Your task to perform on an android device: open wifi settings Image 0: 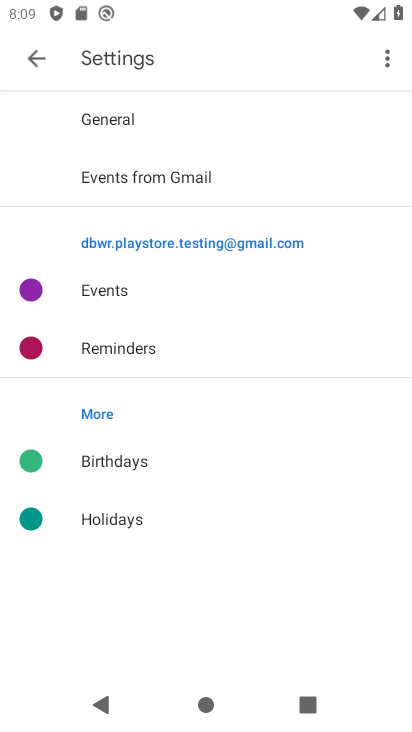
Step 0: press home button
Your task to perform on an android device: open wifi settings Image 1: 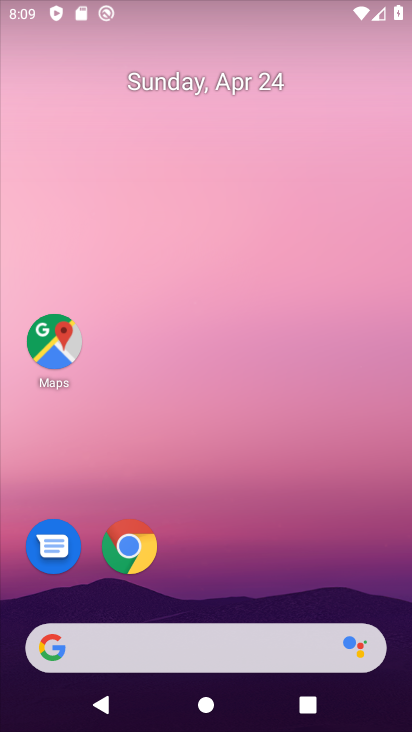
Step 1: drag from (178, 470) to (178, 137)
Your task to perform on an android device: open wifi settings Image 2: 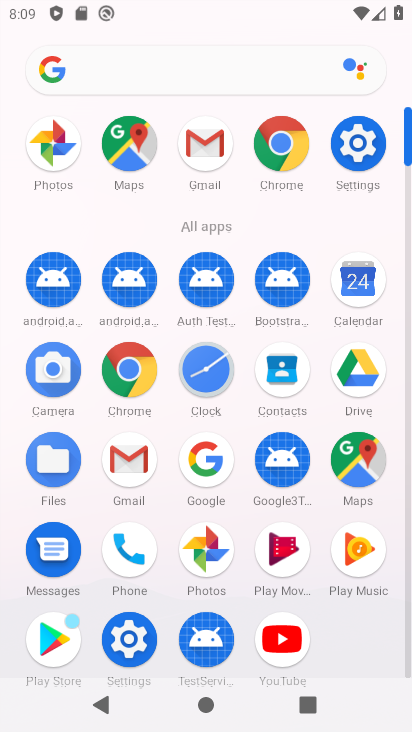
Step 2: click (365, 147)
Your task to perform on an android device: open wifi settings Image 3: 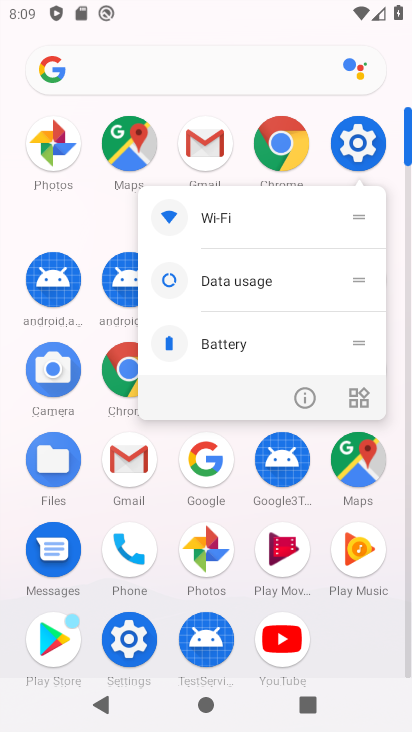
Step 3: click (258, 219)
Your task to perform on an android device: open wifi settings Image 4: 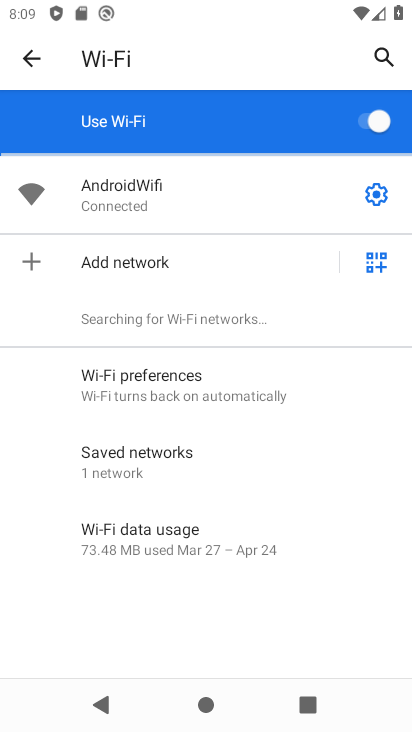
Step 4: click (376, 198)
Your task to perform on an android device: open wifi settings Image 5: 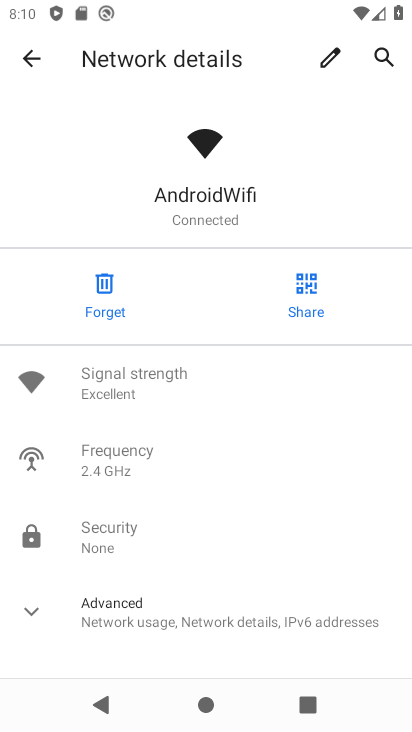
Step 5: task complete